Your task to perform on an android device: move a message to another label in the gmail app Image 0: 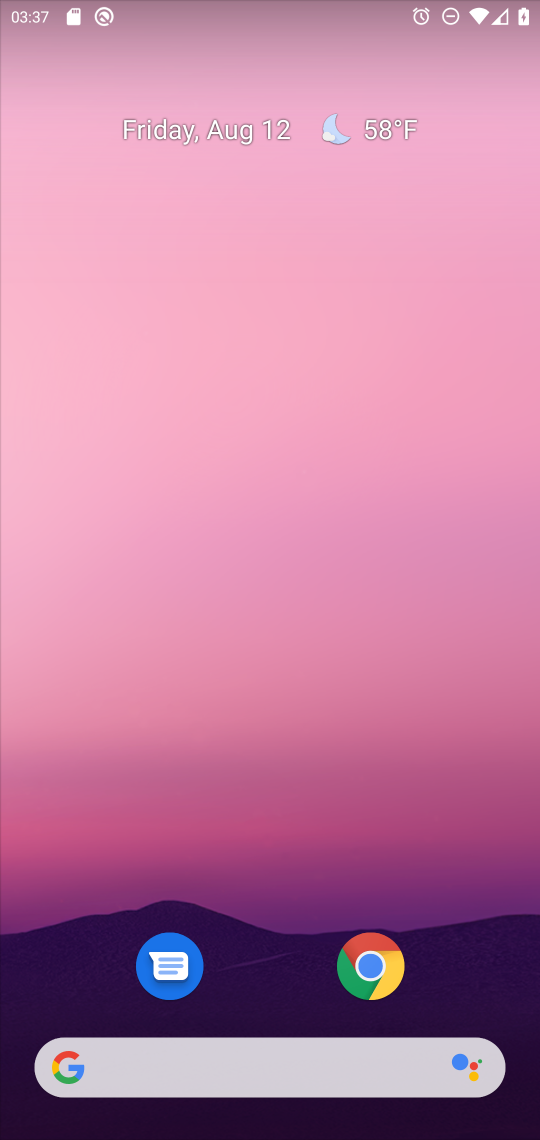
Step 0: drag from (240, 473) to (360, 31)
Your task to perform on an android device: move a message to another label in the gmail app Image 1: 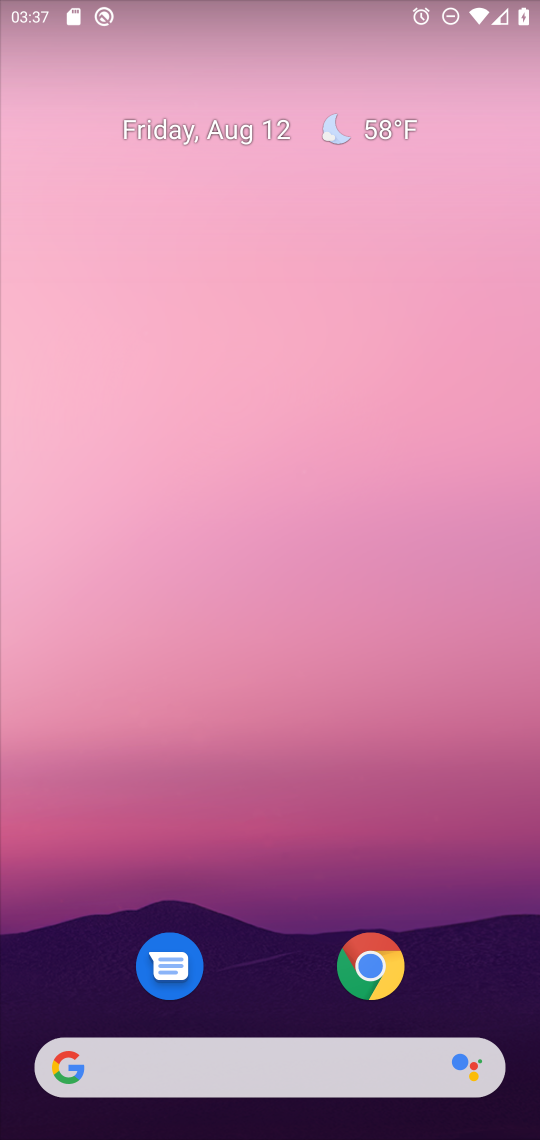
Step 1: drag from (273, 804) to (353, 0)
Your task to perform on an android device: move a message to another label in the gmail app Image 2: 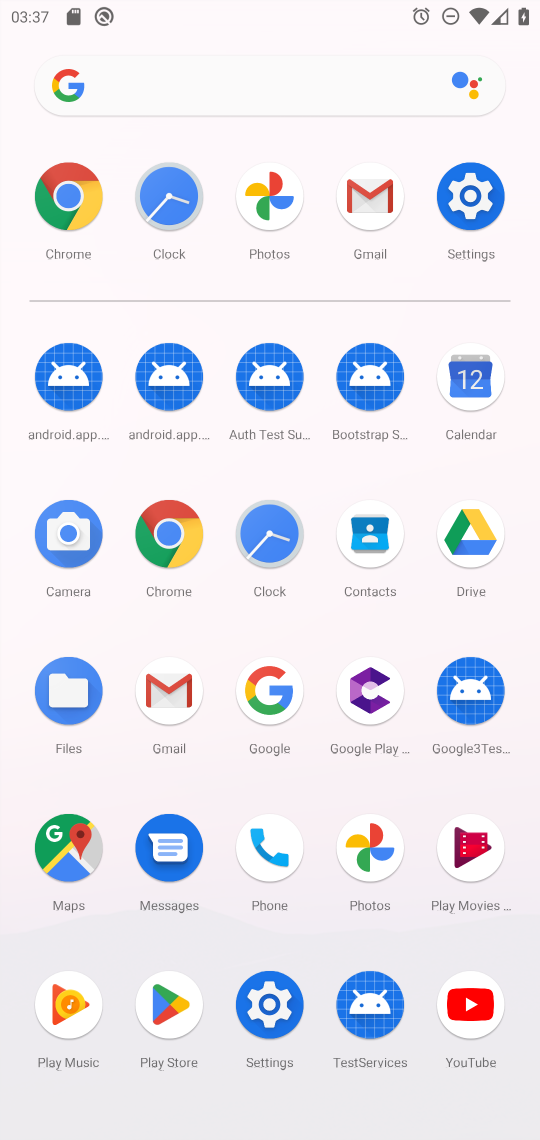
Step 2: click (162, 697)
Your task to perform on an android device: move a message to another label in the gmail app Image 3: 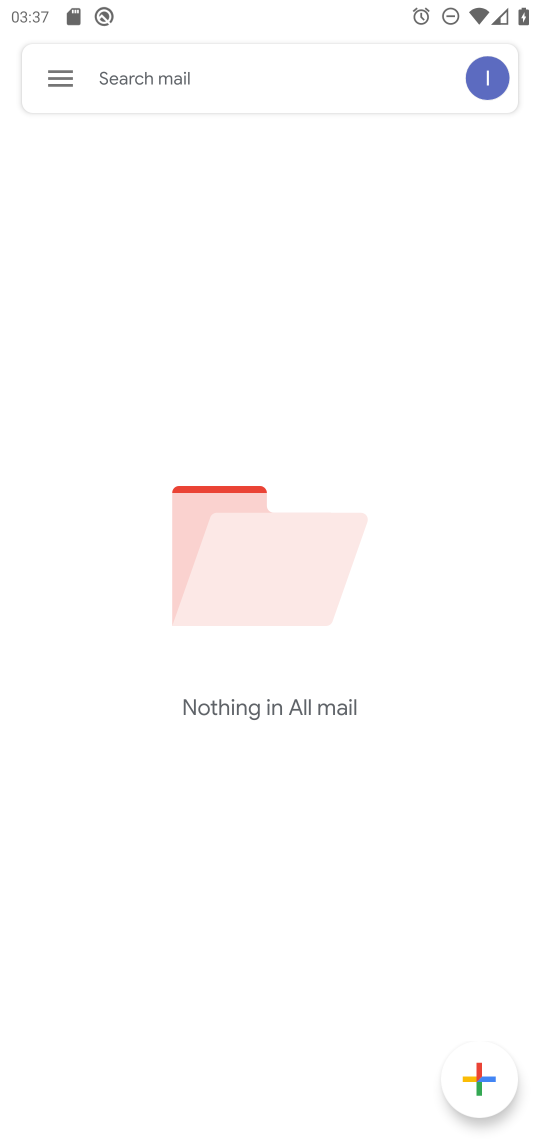
Step 3: task complete